Your task to perform on an android device: toggle improve location accuracy Image 0: 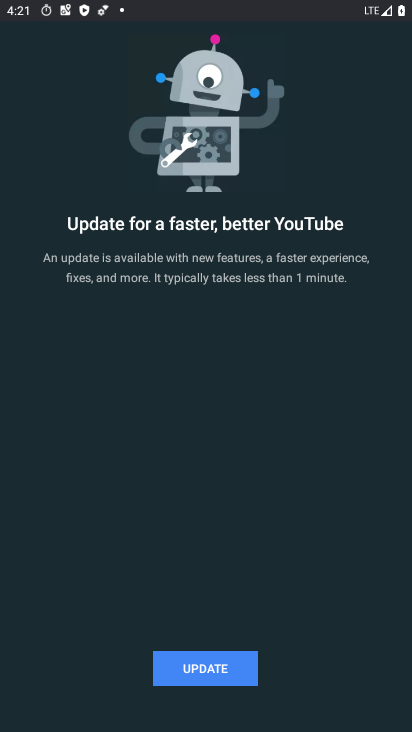
Step 0: press home button
Your task to perform on an android device: toggle improve location accuracy Image 1: 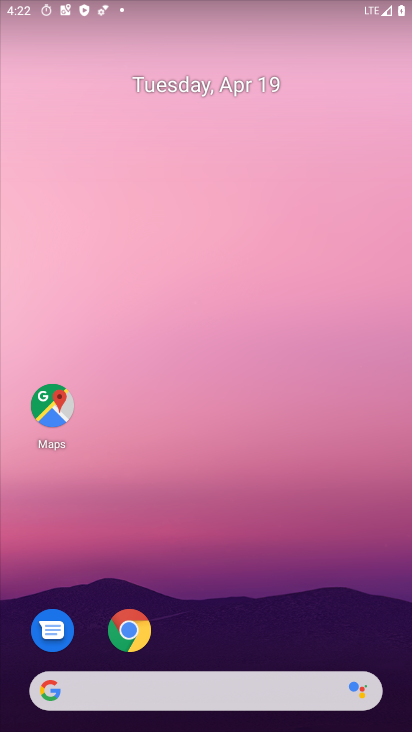
Step 1: drag from (206, 625) to (213, 251)
Your task to perform on an android device: toggle improve location accuracy Image 2: 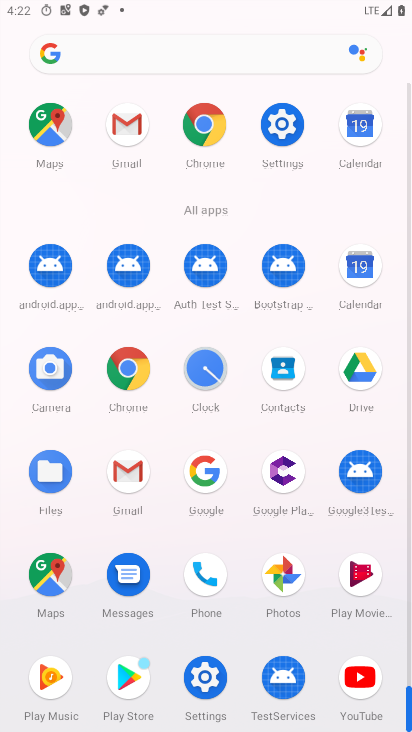
Step 2: click (287, 116)
Your task to perform on an android device: toggle improve location accuracy Image 3: 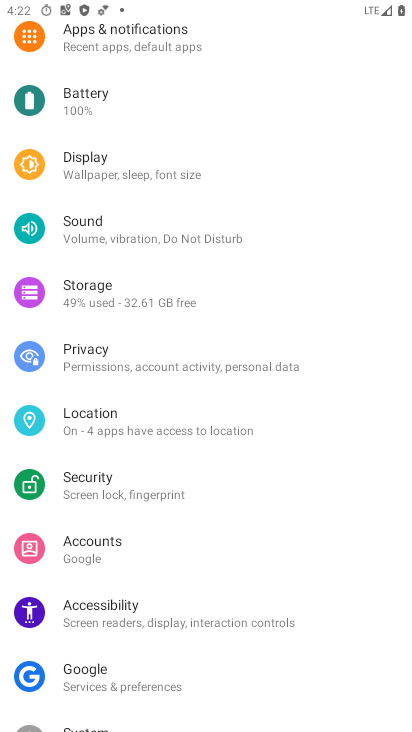
Step 3: drag from (158, 625) to (170, 400)
Your task to perform on an android device: toggle improve location accuracy Image 4: 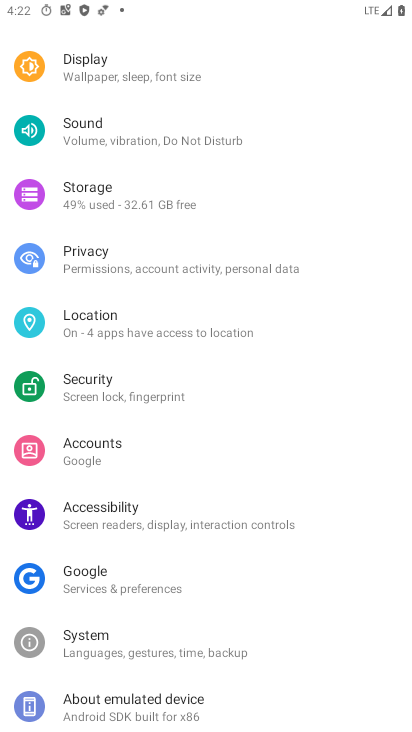
Step 4: click (107, 312)
Your task to perform on an android device: toggle improve location accuracy Image 5: 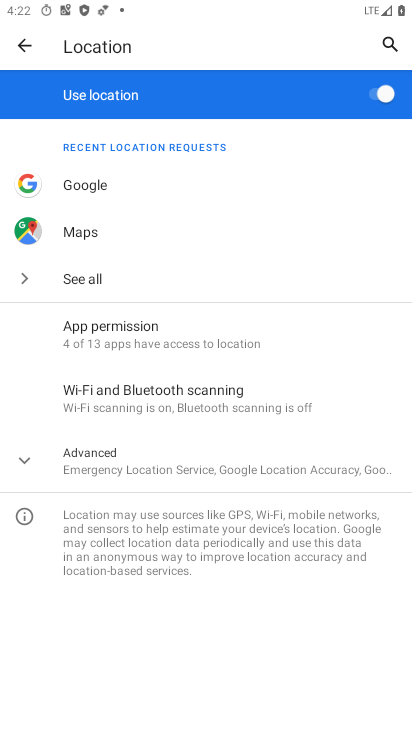
Step 5: click (125, 448)
Your task to perform on an android device: toggle improve location accuracy Image 6: 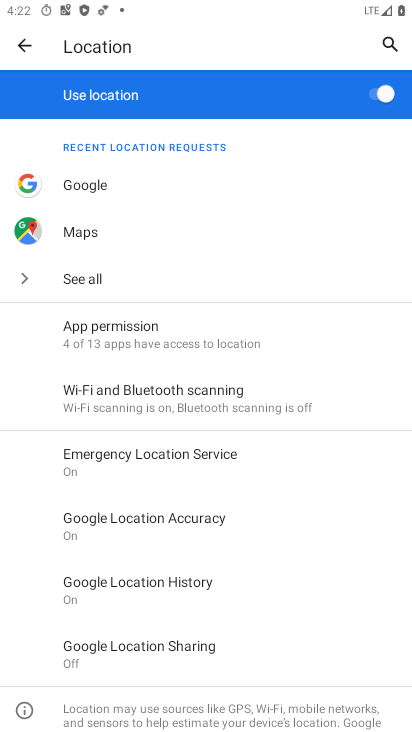
Step 6: click (179, 523)
Your task to perform on an android device: toggle improve location accuracy Image 7: 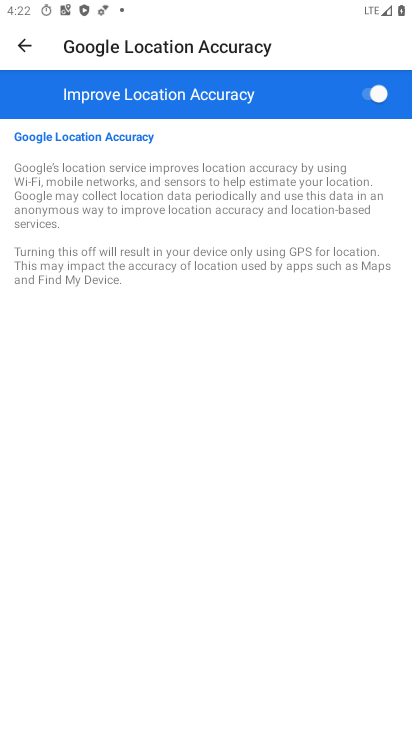
Step 7: click (364, 91)
Your task to perform on an android device: toggle improve location accuracy Image 8: 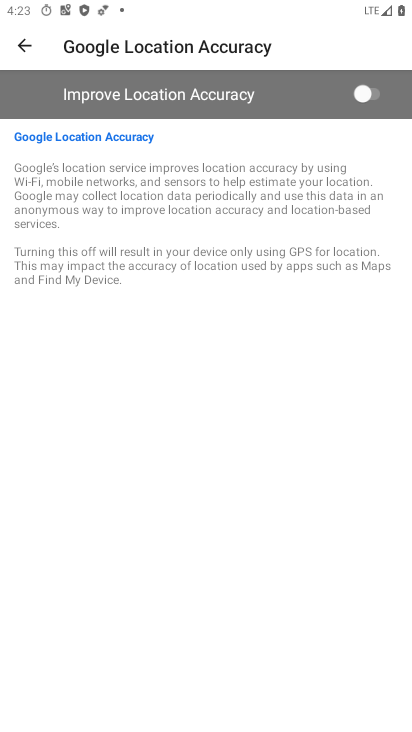
Step 8: task complete